Your task to perform on an android device: turn on airplane mode Image 0: 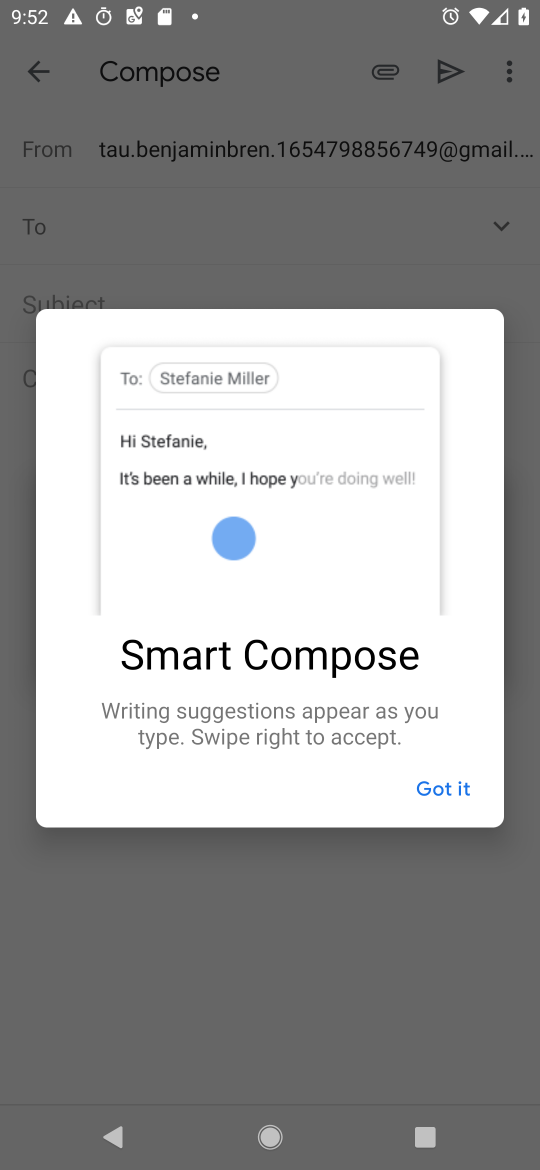
Step 0: press home button
Your task to perform on an android device: turn on airplane mode Image 1: 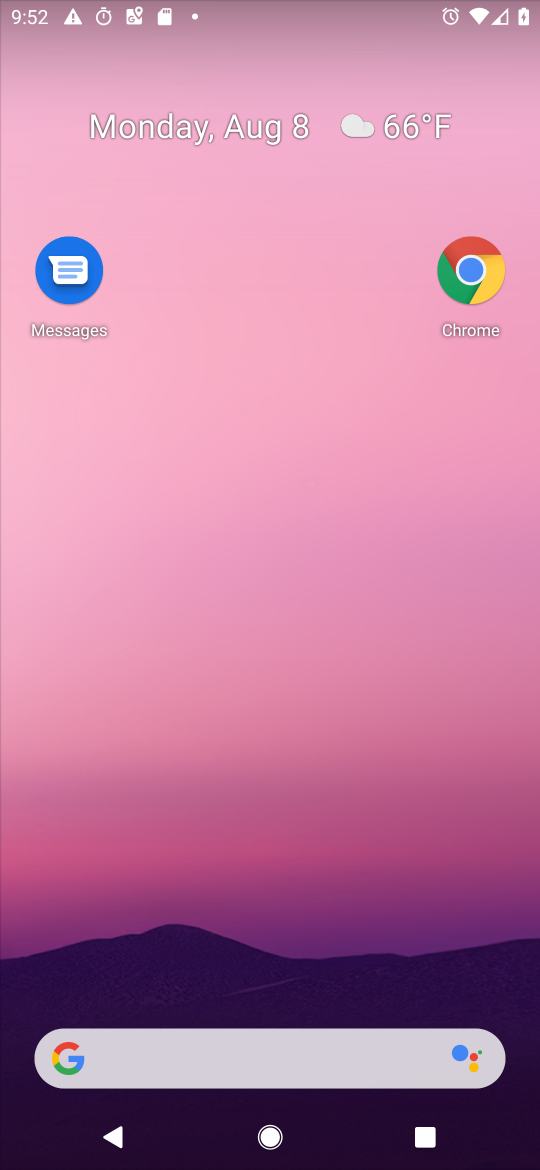
Step 1: drag from (238, 882) to (283, 18)
Your task to perform on an android device: turn on airplane mode Image 2: 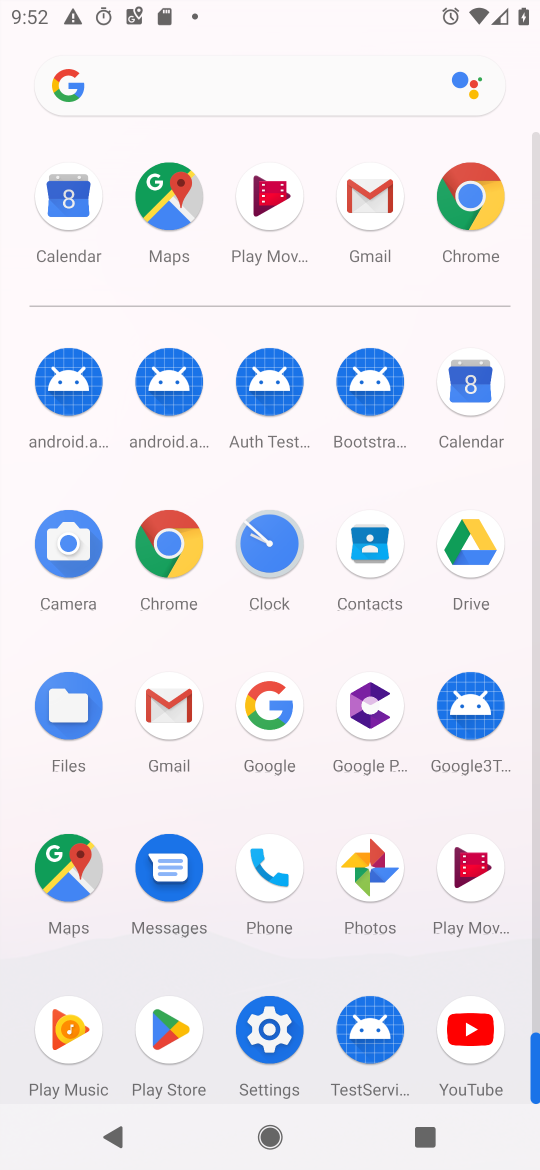
Step 2: click (274, 1030)
Your task to perform on an android device: turn on airplane mode Image 3: 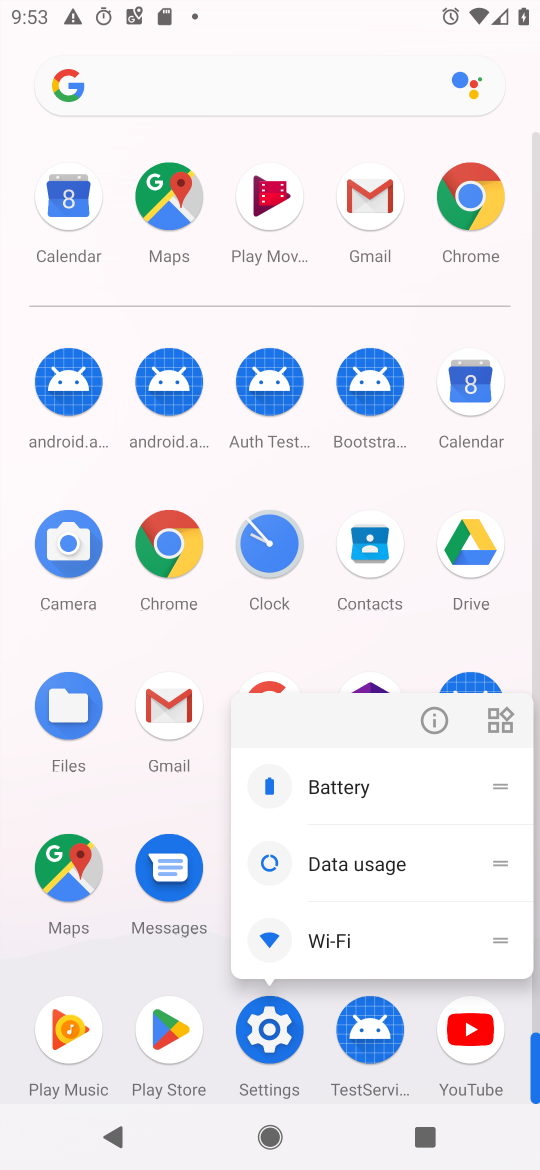
Step 3: click (446, 721)
Your task to perform on an android device: turn on airplane mode Image 4: 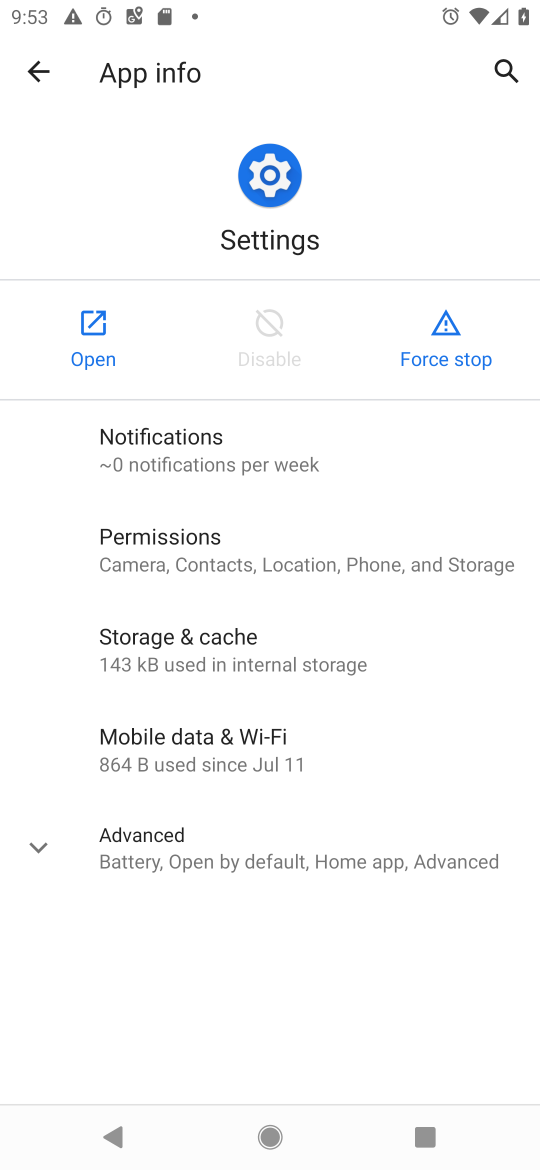
Step 4: click (101, 325)
Your task to perform on an android device: turn on airplane mode Image 5: 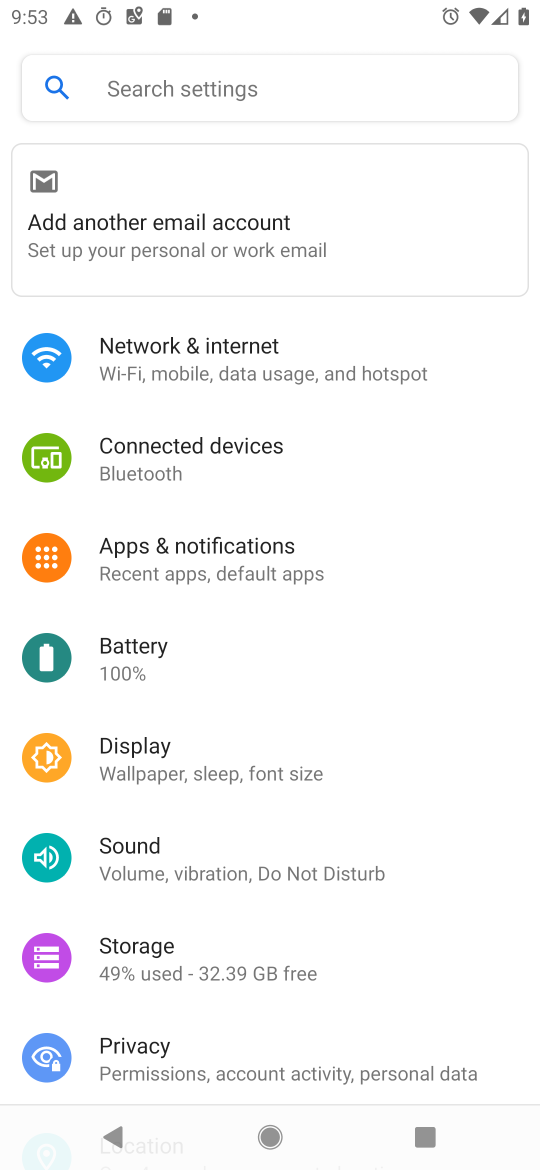
Step 5: click (175, 369)
Your task to perform on an android device: turn on airplane mode Image 6: 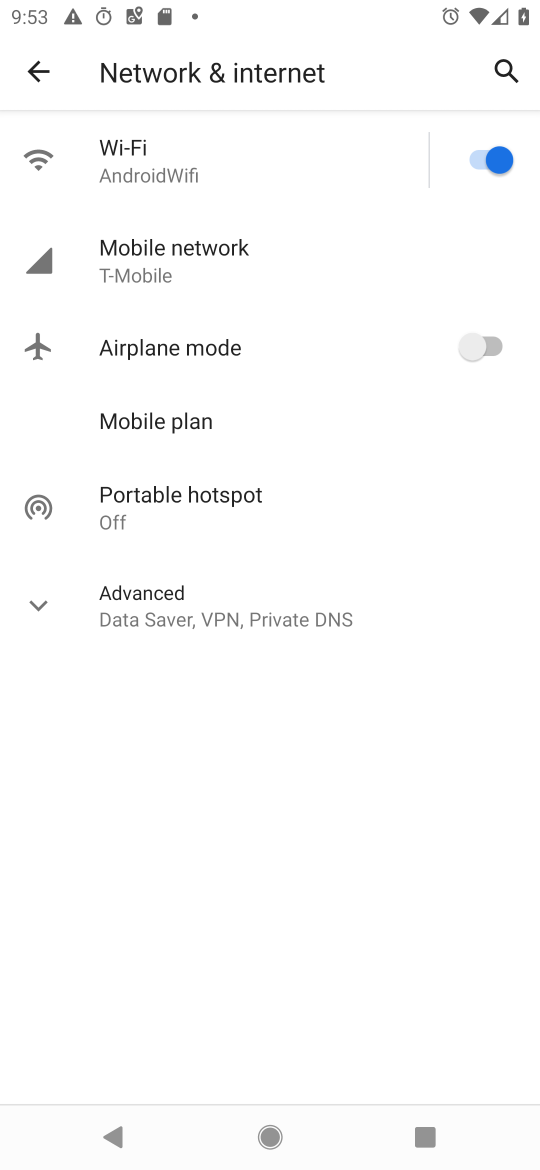
Step 6: click (232, 352)
Your task to perform on an android device: turn on airplane mode Image 7: 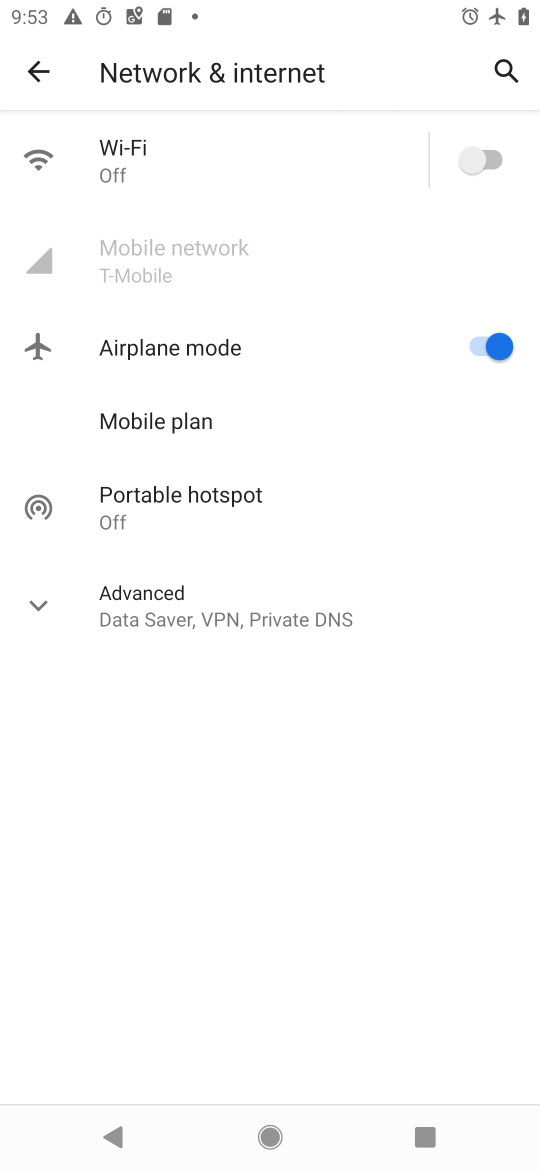
Step 7: task complete